Your task to perform on an android device: Open Maps and search for coffee Image 0: 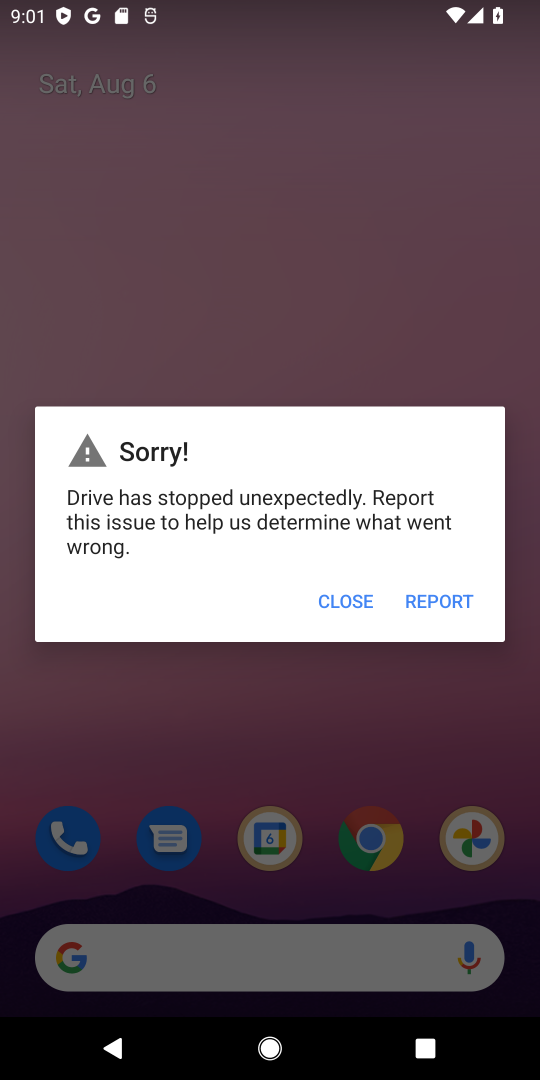
Step 0: click (350, 592)
Your task to perform on an android device: Open Maps and search for coffee Image 1: 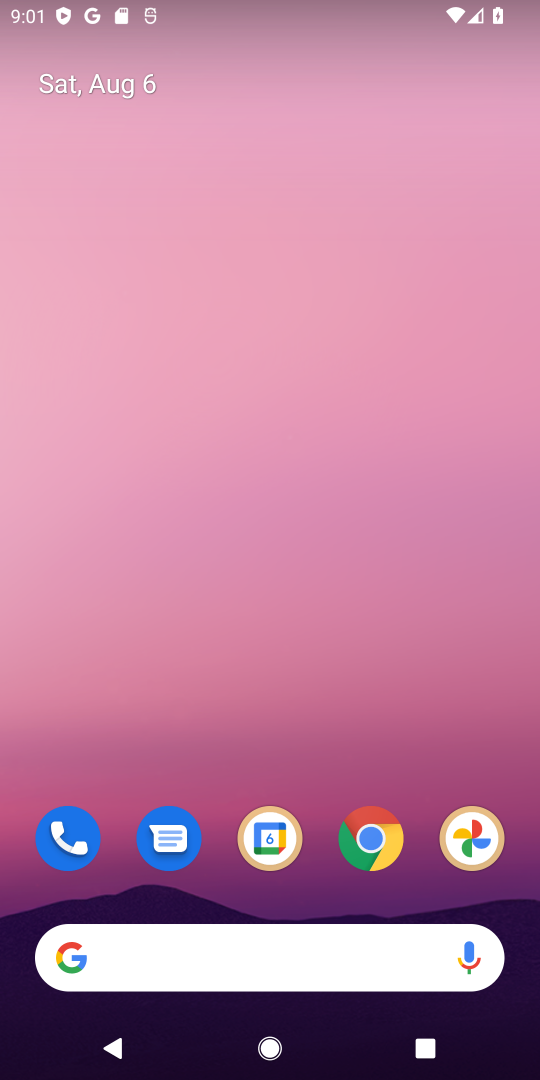
Step 1: drag from (328, 795) to (266, 196)
Your task to perform on an android device: Open Maps and search for coffee Image 2: 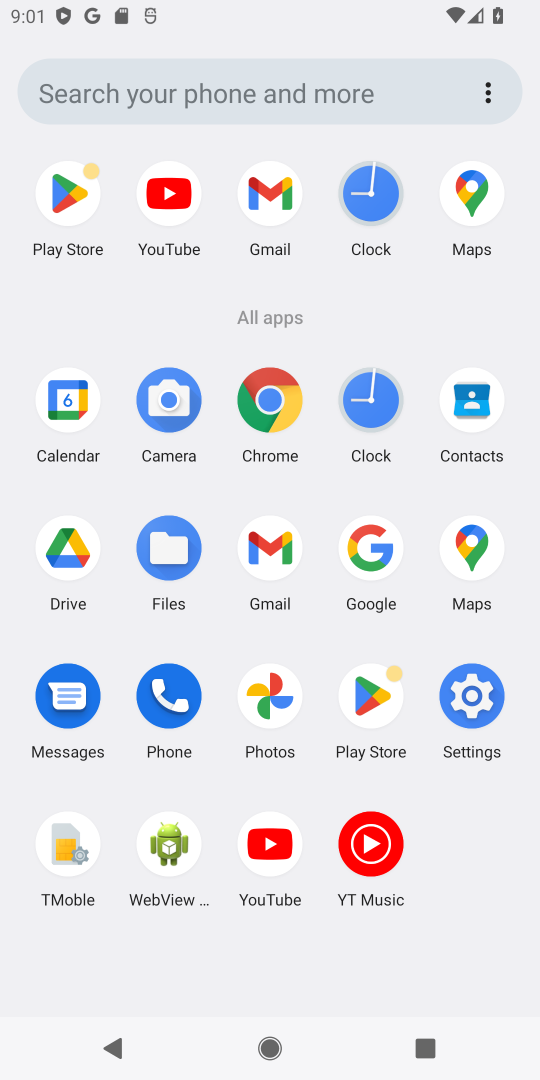
Step 2: click (480, 541)
Your task to perform on an android device: Open Maps and search for coffee Image 3: 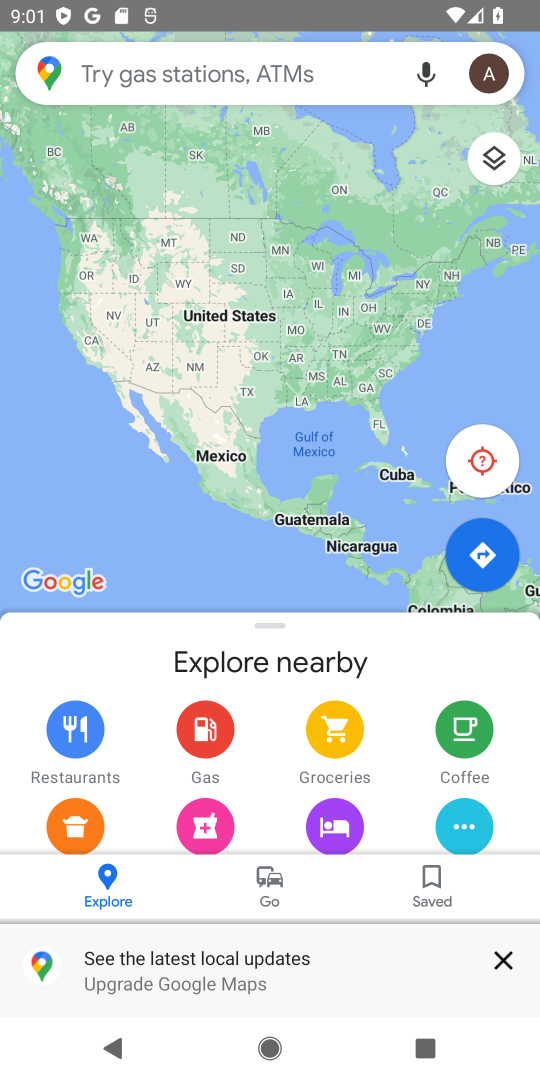
Step 3: click (320, 68)
Your task to perform on an android device: Open Maps and search for coffee Image 4: 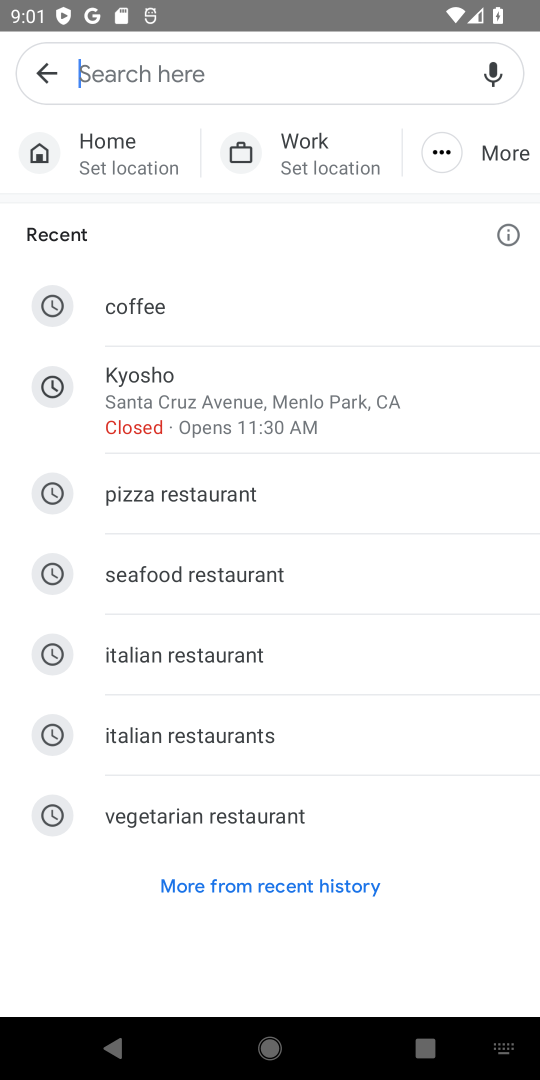
Step 4: click (243, 294)
Your task to perform on an android device: Open Maps and search for coffee Image 5: 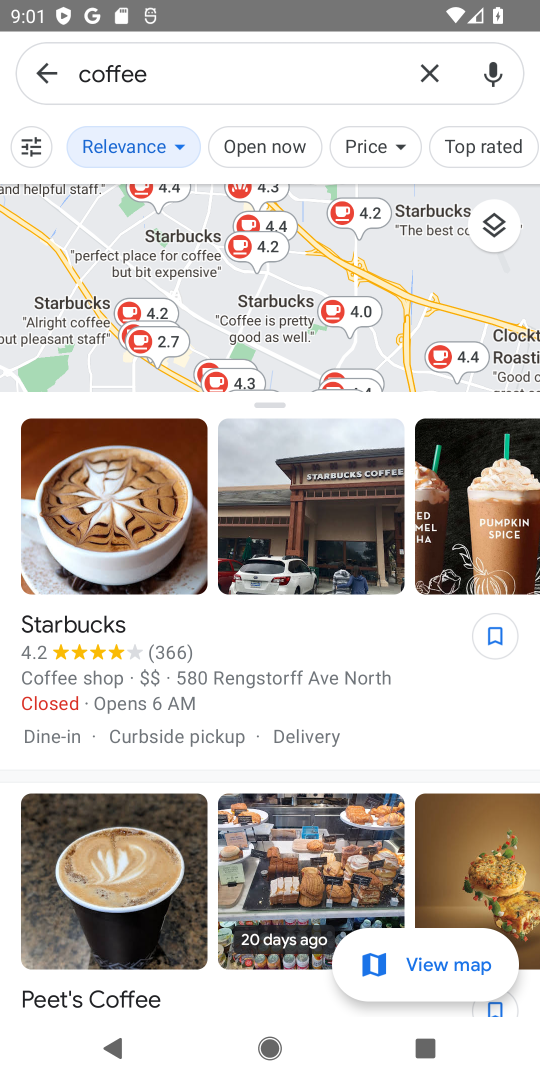
Step 5: task complete